Your task to perform on an android device: Open Android settings Image 0: 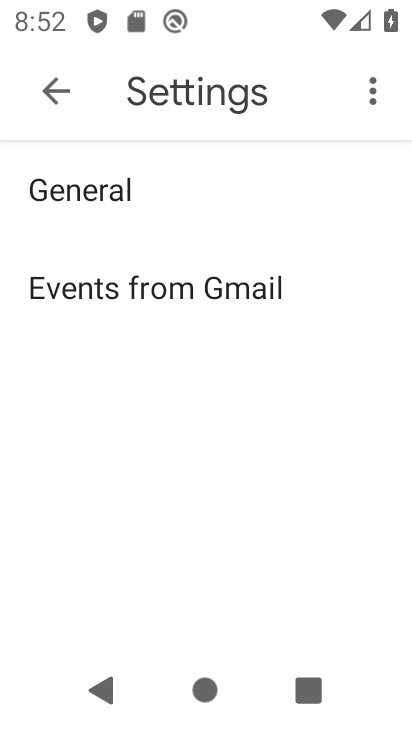
Step 0: press home button
Your task to perform on an android device: Open Android settings Image 1: 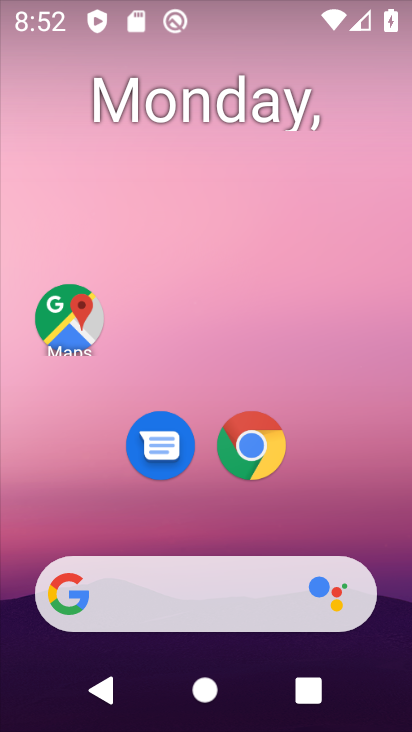
Step 1: drag from (362, 539) to (371, 242)
Your task to perform on an android device: Open Android settings Image 2: 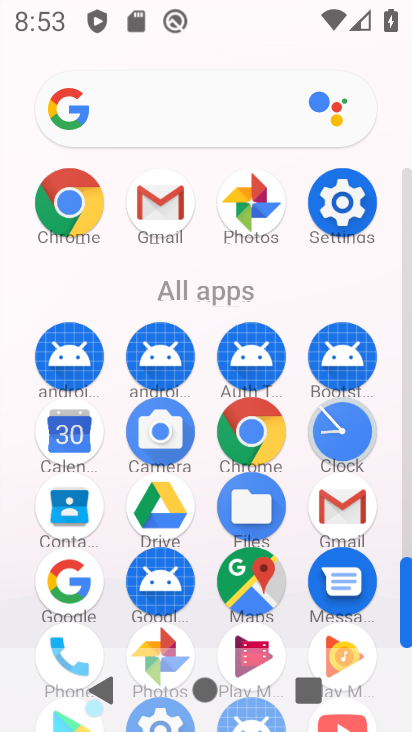
Step 2: click (351, 217)
Your task to perform on an android device: Open Android settings Image 3: 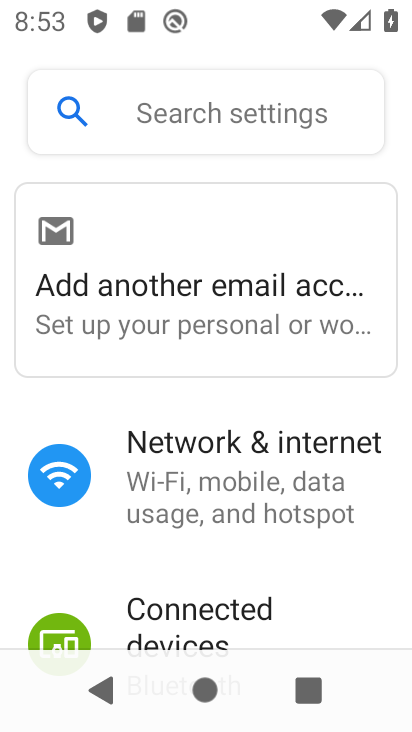
Step 3: drag from (356, 583) to (368, 466)
Your task to perform on an android device: Open Android settings Image 4: 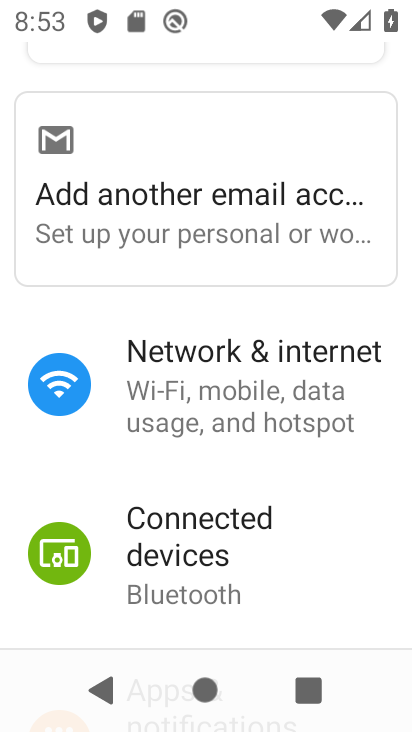
Step 4: drag from (367, 596) to (366, 477)
Your task to perform on an android device: Open Android settings Image 5: 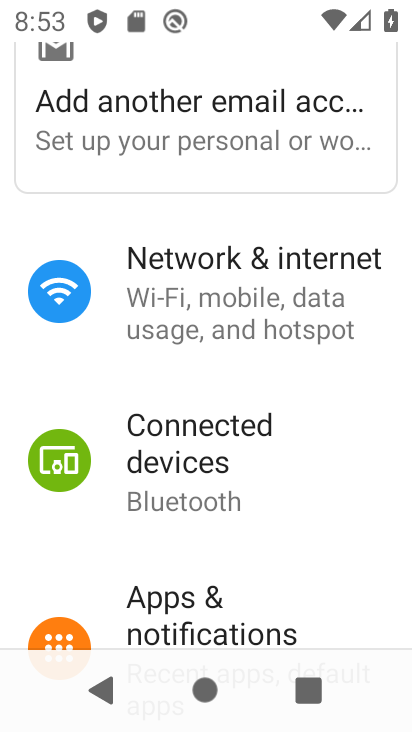
Step 5: drag from (355, 580) to (355, 469)
Your task to perform on an android device: Open Android settings Image 6: 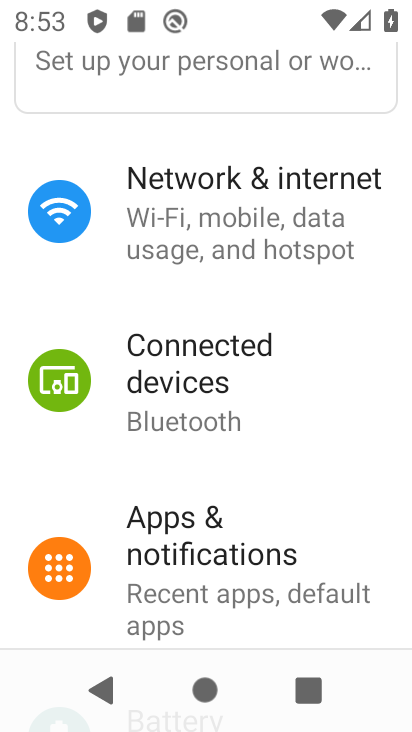
Step 6: drag from (351, 618) to (361, 493)
Your task to perform on an android device: Open Android settings Image 7: 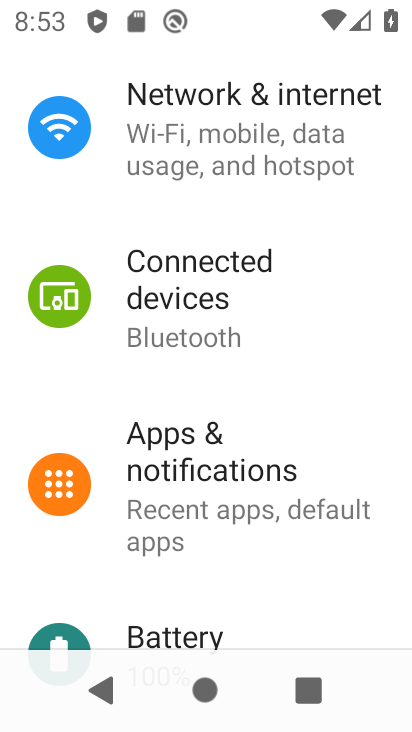
Step 7: drag from (354, 598) to (348, 495)
Your task to perform on an android device: Open Android settings Image 8: 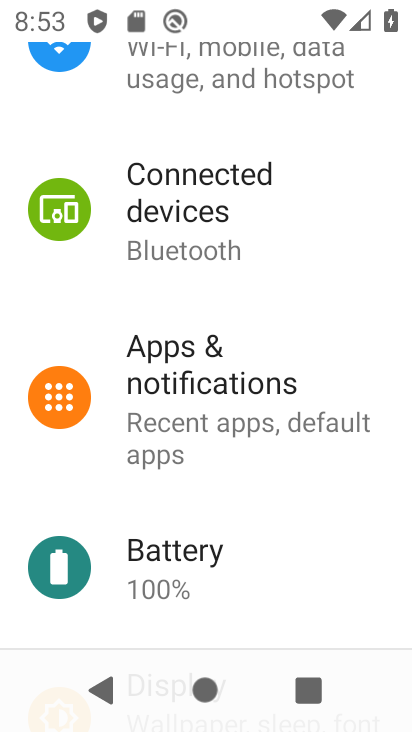
Step 8: drag from (364, 561) to (362, 460)
Your task to perform on an android device: Open Android settings Image 9: 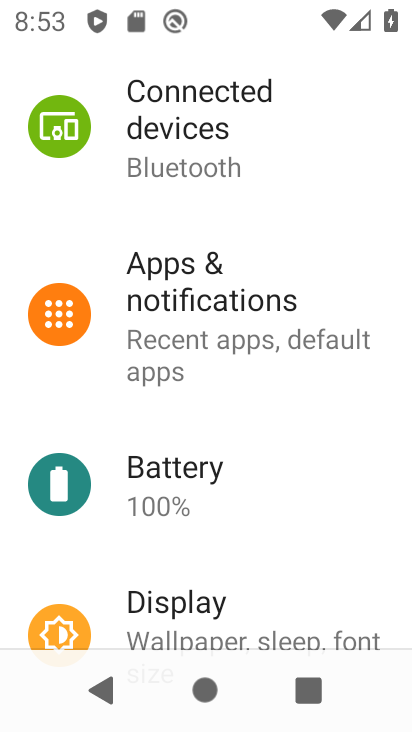
Step 9: drag from (342, 560) to (355, 453)
Your task to perform on an android device: Open Android settings Image 10: 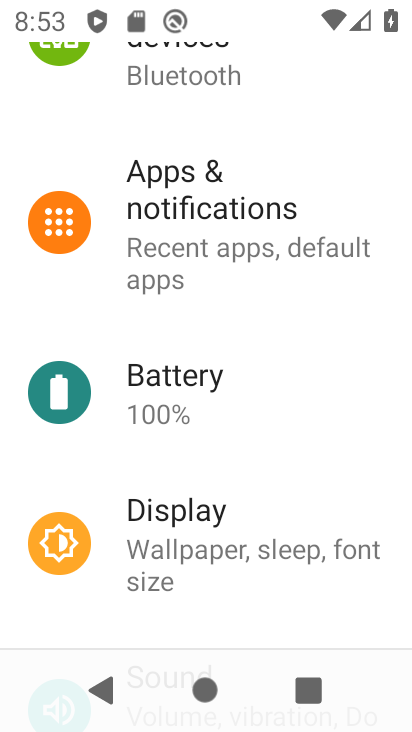
Step 10: drag from (344, 593) to (350, 482)
Your task to perform on an android device: Open Android settings Image 11: 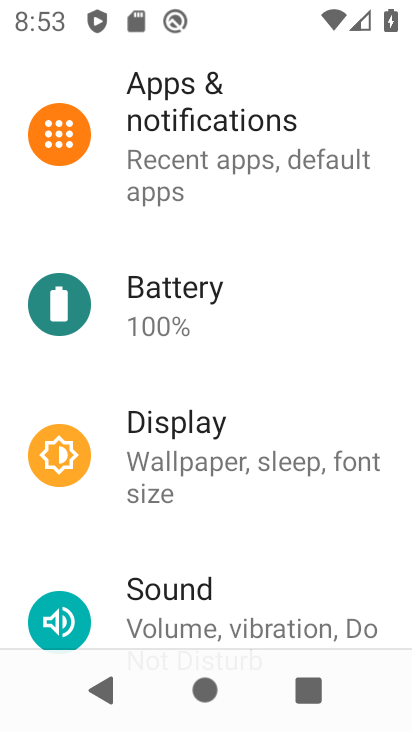
Step 11: drag from (330, 571) to (327, 440)
Your task to perform on an android device: Open Android settings Image 12: 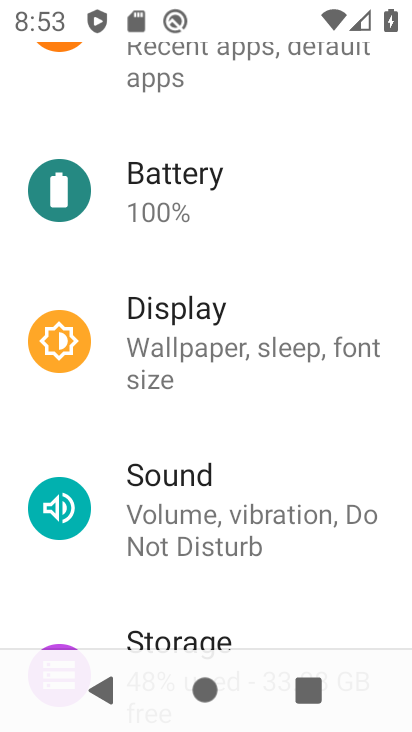
Step 12: drag from (321, 553) to (326, 402)
Your task to perform on an android device: Open Android settings Image 13: 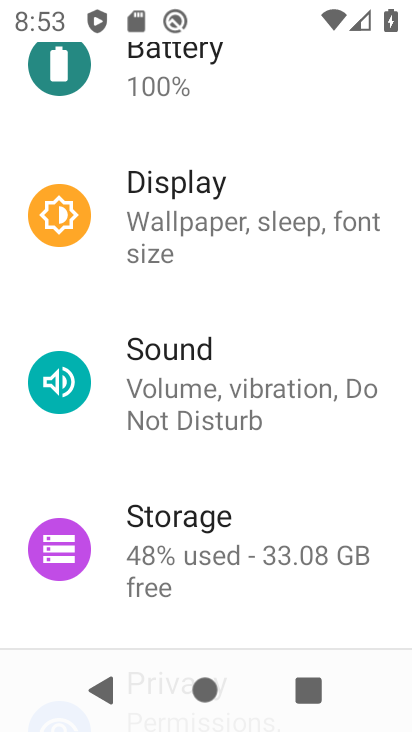
Step 13: drag from (342, 600) to (348, 438)
Your task to perform on an android device: Open Android settings Image 14: 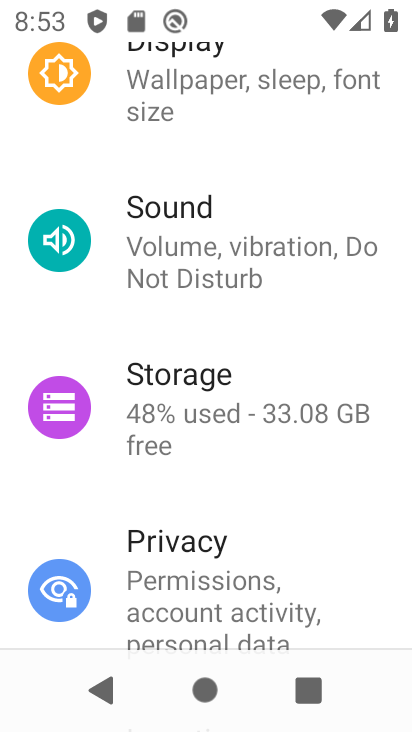
Step 14: drag from (347, 569) to (345, 461)
Your task to perform on an android device: Open Android settings Image 15: 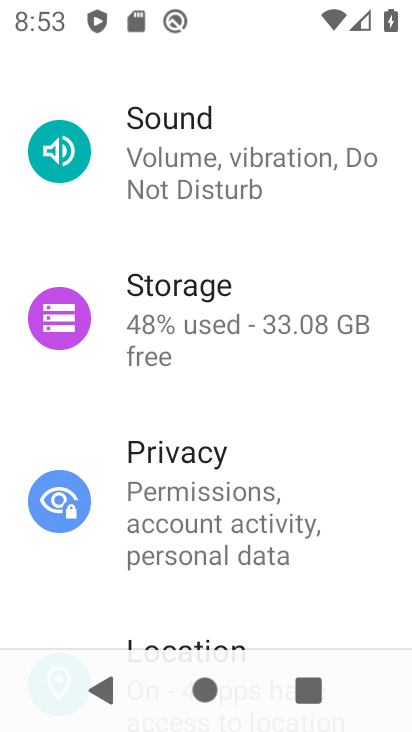
Step 15: drag from (349, 599) to (360, 479)
Your task to perform on an android device: Open Android settings Image 16: 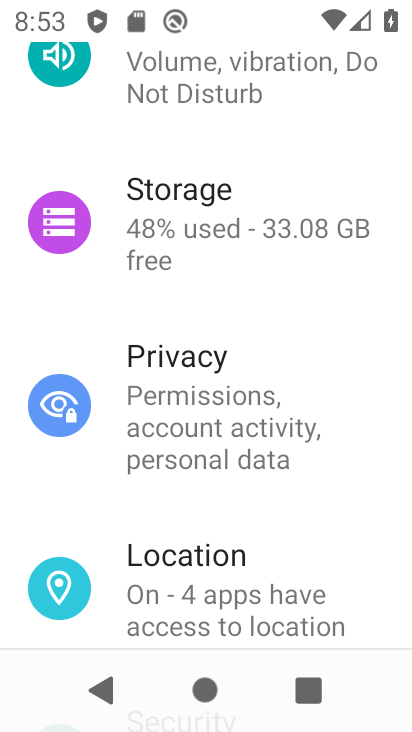
Step 16: drag from (364, 602) to (369, 425)
Your task to perform on an android device: Open Android settings Image 17: 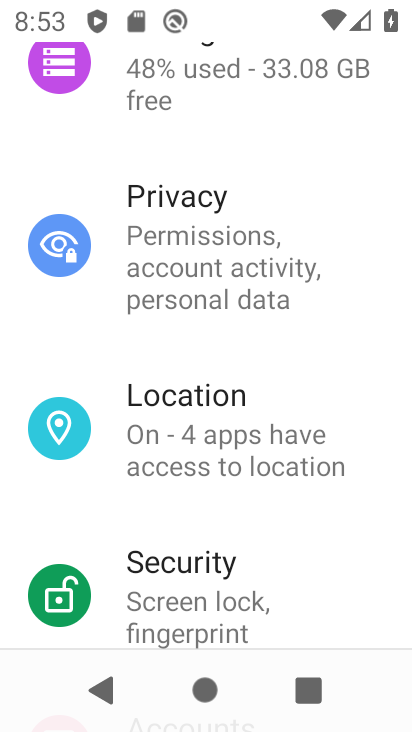
Step 17: drag from (364, 598) to (381, 463)
Your task to perform on an android device: Open Android settings Image 18: 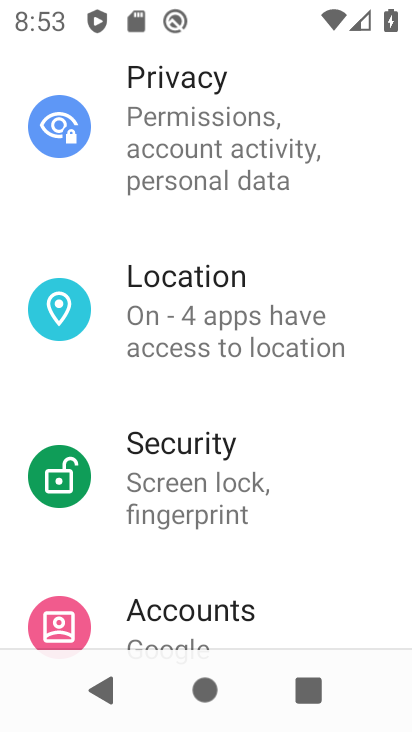
Step 18: drag from (375, 619) to (374, 494)
Your task to perform on an android device: Open Android settings Image 19: 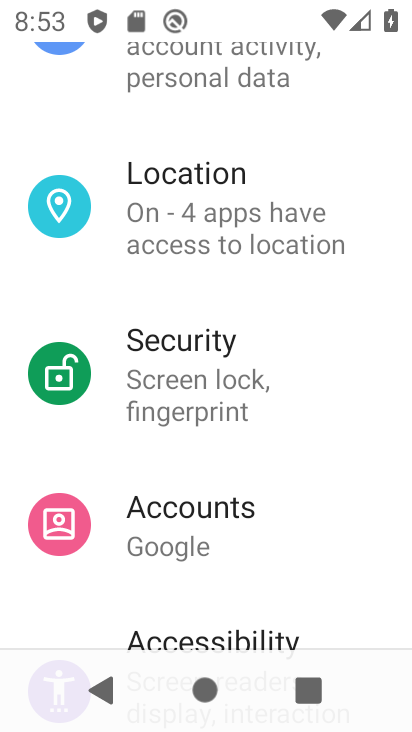
Step 19: drag from (362, 587) to (363, 445)
Your task to perform on an android device: Open Android settings Image 20: 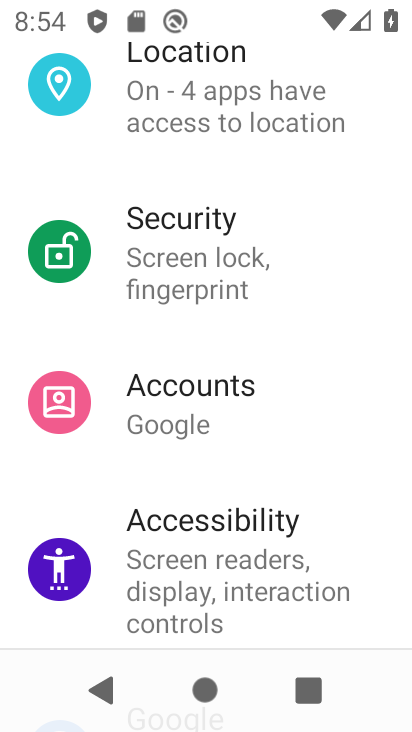
Step 20: drag from (368, 615) to (370, 491)
Your task to perform on an android device: Open Android settings Image 21: 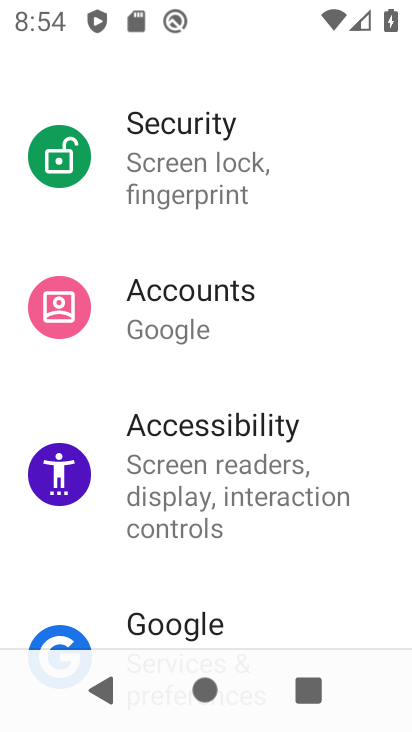
Step 21: drag from (366, 596) to (377, 472)
Your task to perform on an android device: Open Android settings Image 22: 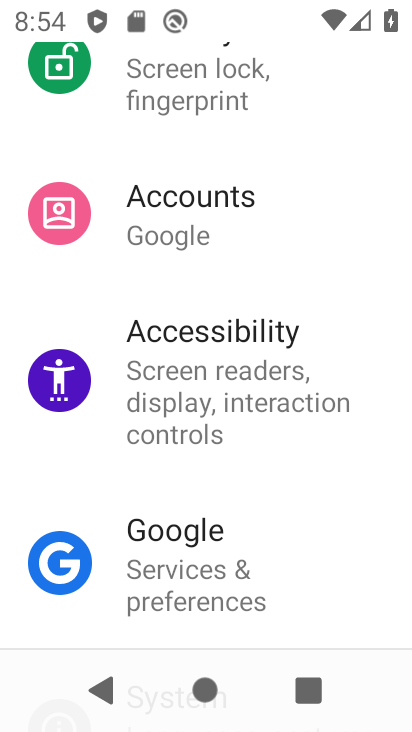
Step 22: drag from (315, 577) to (336, 430)
Your task to perform on an android device: Open Android settings Image 23: 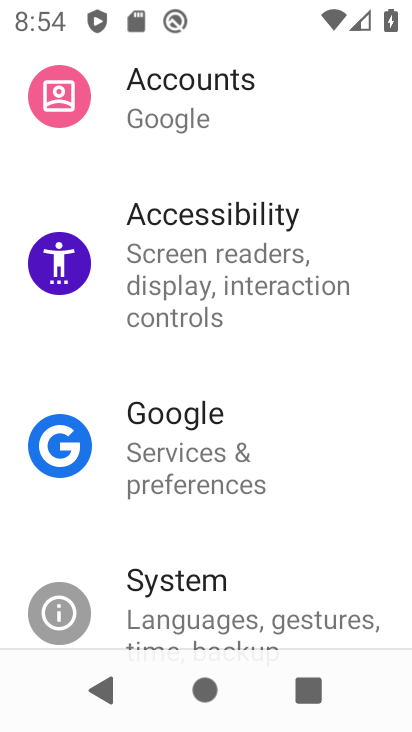
Step 23: drag from (333, 535) to (332, 367)
Your task to perform on an android device: Open Android settings Image 24: 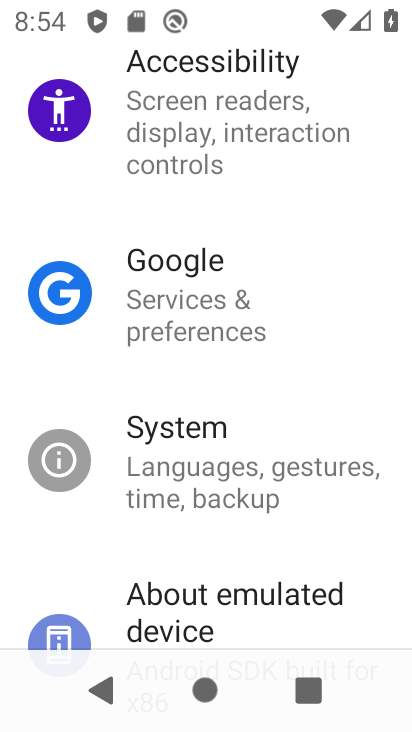
Step 24: click (262, 463)
Your task to perform on an android device: Open Android settings Image 25: 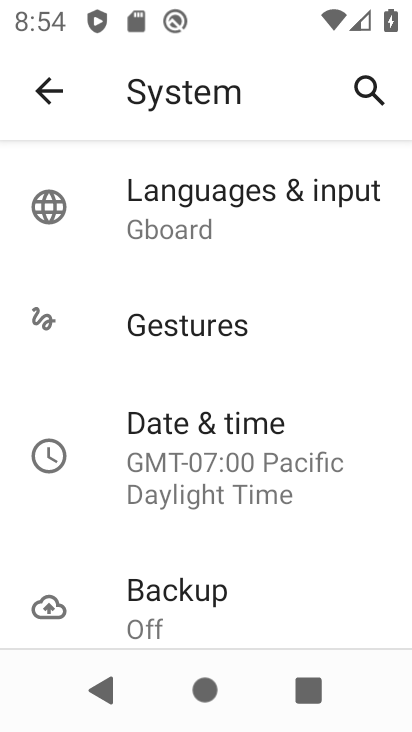
Step 25: drag from (309, 586) to (350, 395)
Your task to perform on an android device: Open Android settings Image 26: 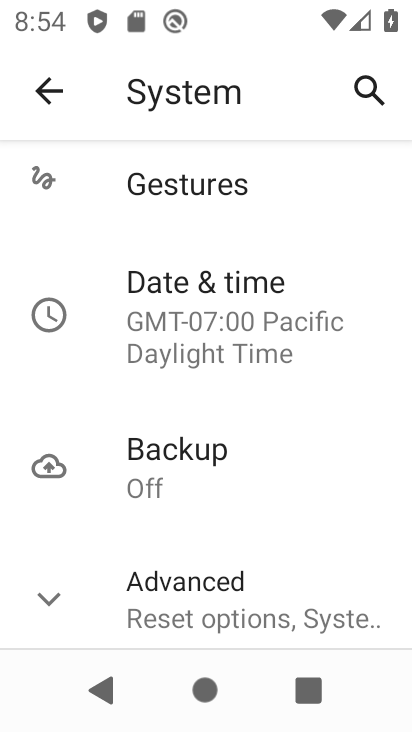
Step 26: drag from (354, 572) to (364, 412)
Your task to perform on an android device: Open Android settings Image 27: 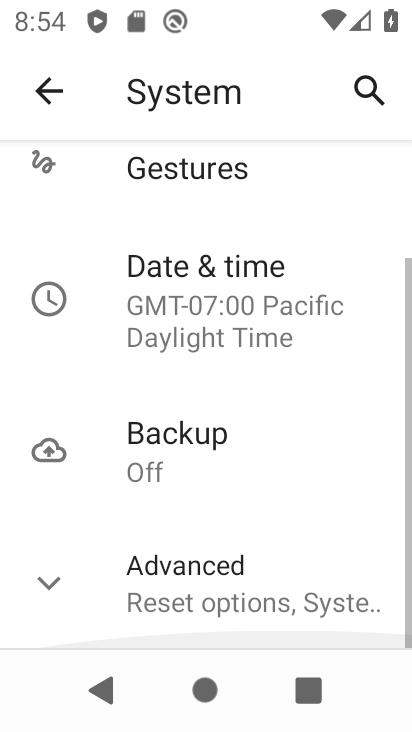
Step 27: click (343, 586)
Your task to perform on an android device: Open Android settings Image 28: 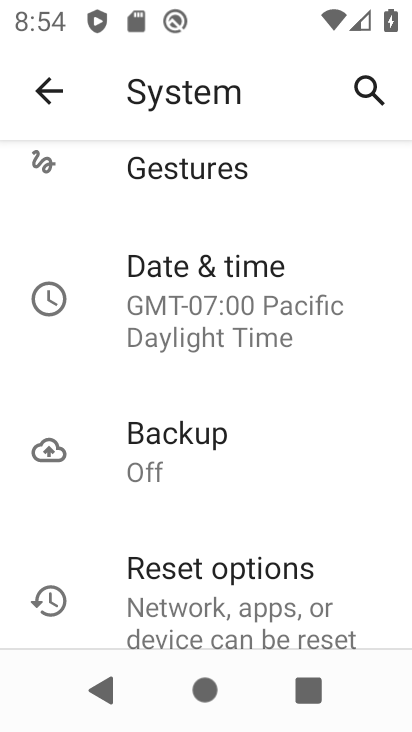
Step 28: task complete